Your task to perform on an android device: turn on airplane mode Image 0: 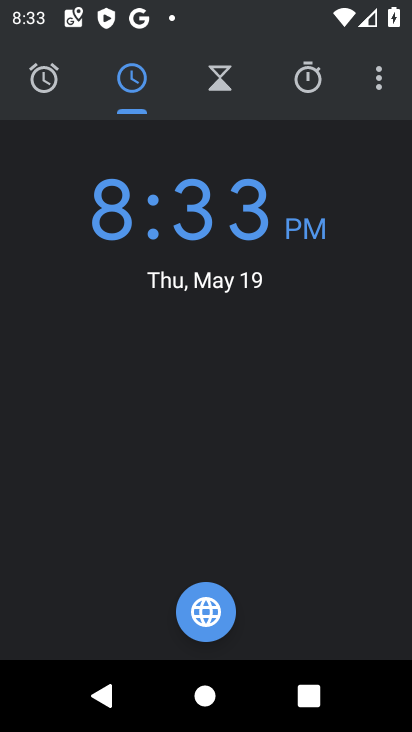
Step 0: press home button
Your task to perform on an android device: turn on airplane mode Image 1: 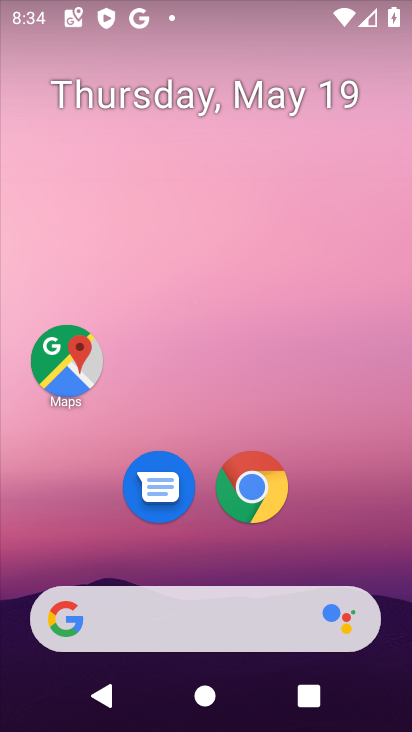
Step 1: drag from (215, 529) to (209, 52)
Your task to perform on an android device: turn on airplane mode Image 2: 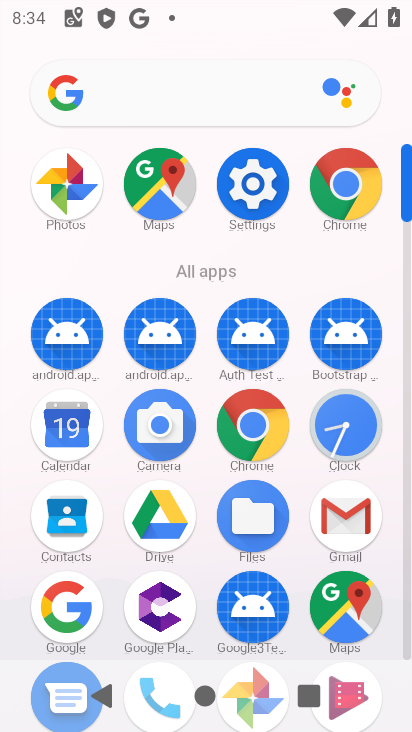
Step 2: click (269, 200)
Your task to perform on an android device: turn on airplane mode Image 3: 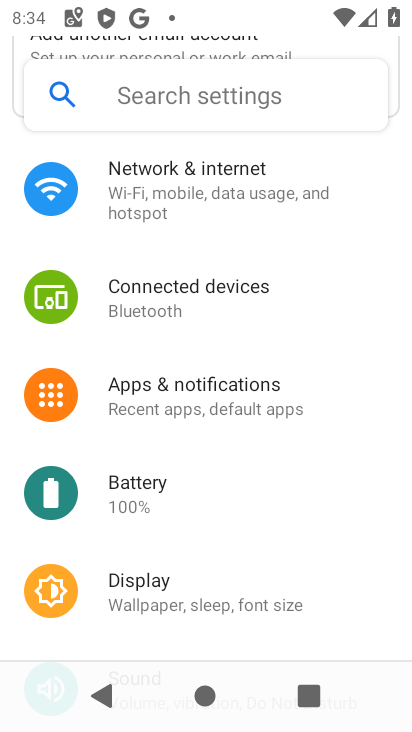
Step 3: click (128, 207)
Your task to perform on an android device: turn on airplane mode Image 4: 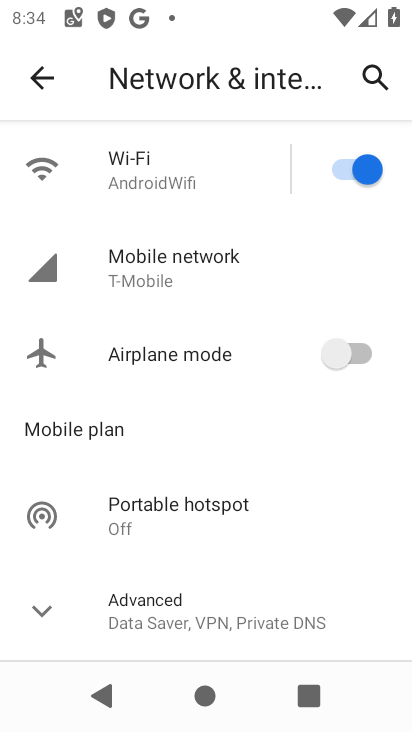
Step 4: click (347, 353)
Your task to perform on an android device: turn on airplane mode Image 5: 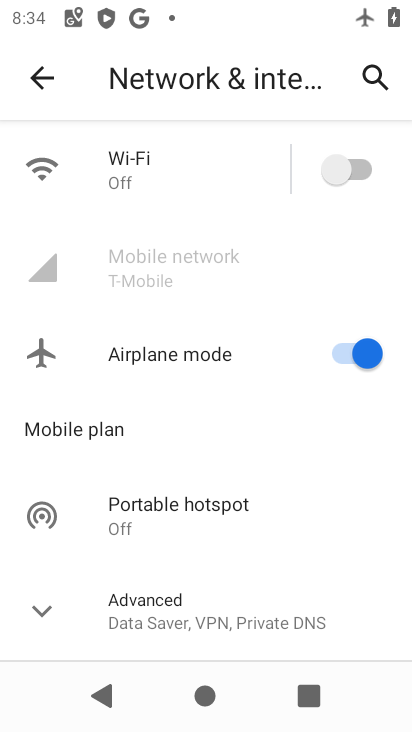
Step 5: task complete